Your task to perform on an android device: turn off picture-in-picture Image 0: 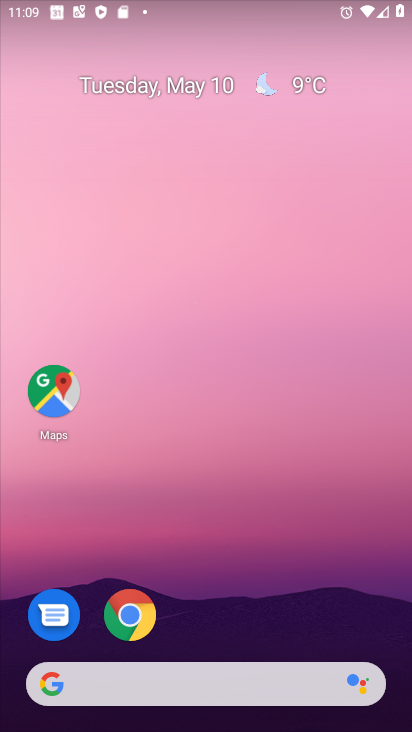
Step 0: click (131, 612)
Your task to perform on an android device: turn off picture-in-picture Image 1: 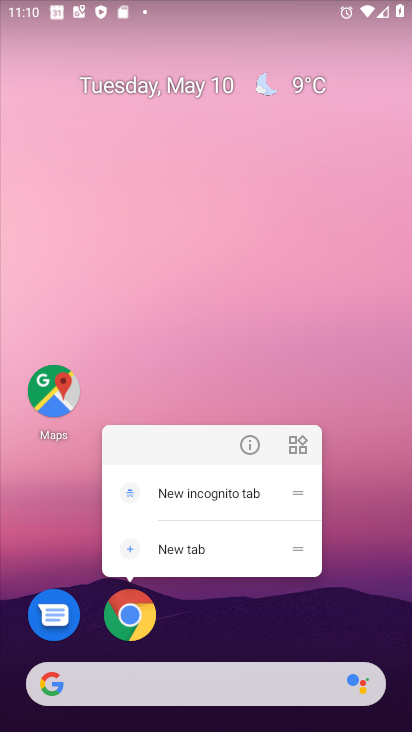
Step 1: click (252, 442)
Your task to perform on an android device: turn off picture-in-picture Image 2: 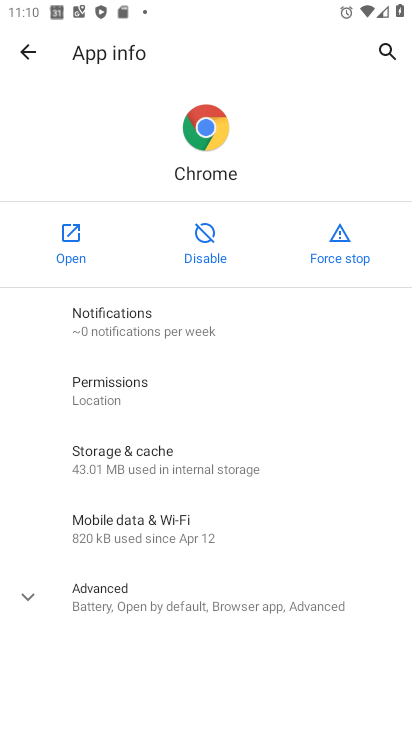
Step 2: click (25, 592)
Your task to perform on an android device: turn off picture-in-picture Image 3: 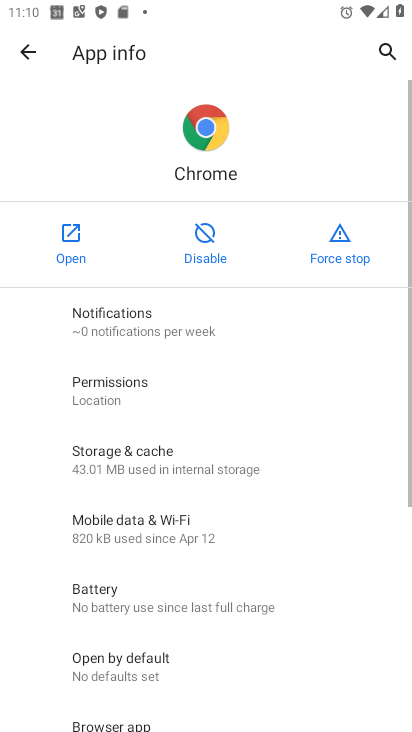
Step 3: drag from (119, 640) to (116, 195)
Your task to perform on an android device: turn off picture-in-picture Image 4: 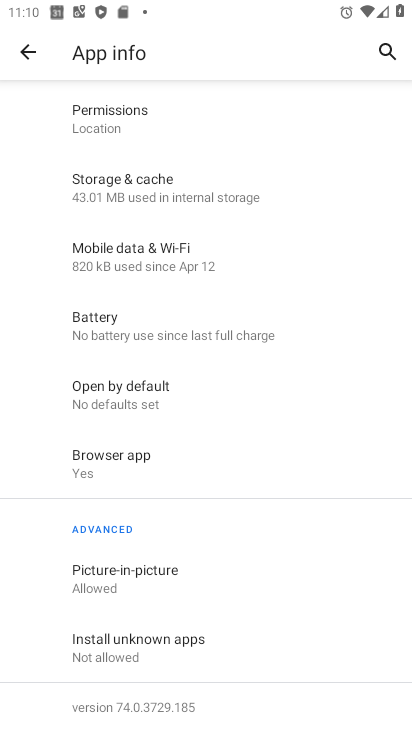
Step 4: click (130, 578)
Your task to perform on an android device: turn off picture-in-picture Image 5: 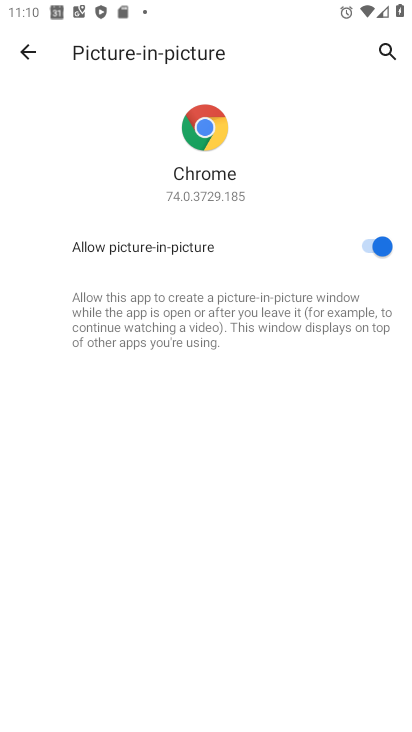
Step 5: click (372, 241)
Your task to perform on an android device: turn off picture-in-picture Image 6: 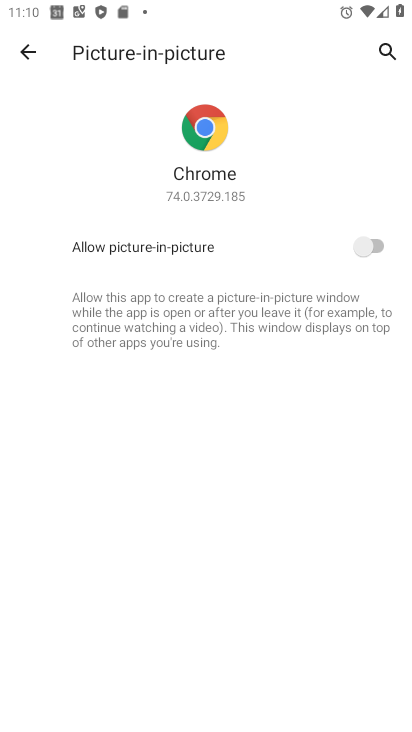
Step 6: task complete